Your task to perform on an android device: Search for dell xps on newegg, select the first entry, add it to the cart, then select checkout. Image 0: 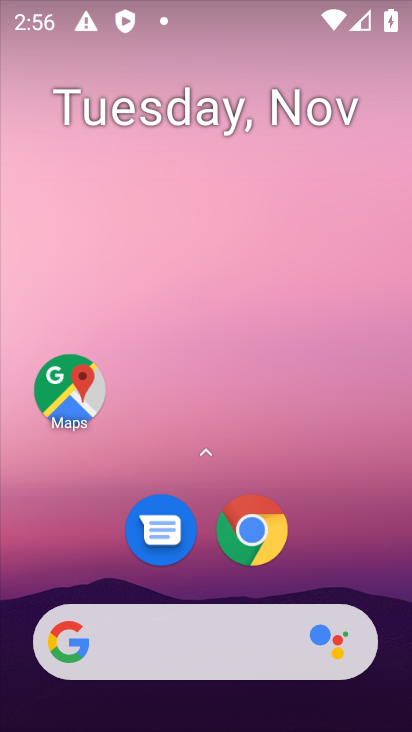
Step 0: drag from (244, 701) to (182, 53)
Your task to perform on an android device: Search for dell xps on newegg, select the first entry, add it to the cart, then select checkout. Image 1: 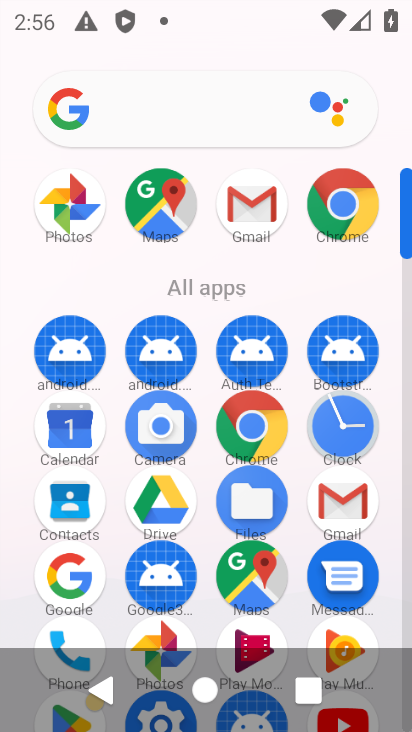
Step 1: click (248, 414)
Your task to perform on an android device: Search for dell xps on newegg, select the first entry, add it to the cart, then select checkout. Image 2: 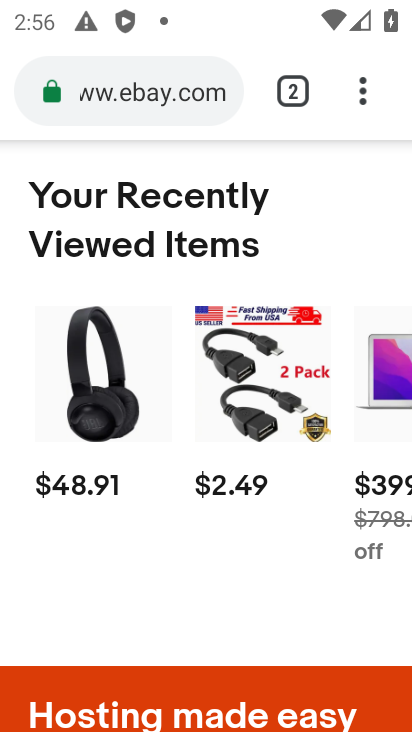
Step 2: drag from (294, 200) to (203, 624)
Your task to perform on an android device: Search for dell xps on newegg, select the first entry, add it to the cart, then select checkout. Image 3: 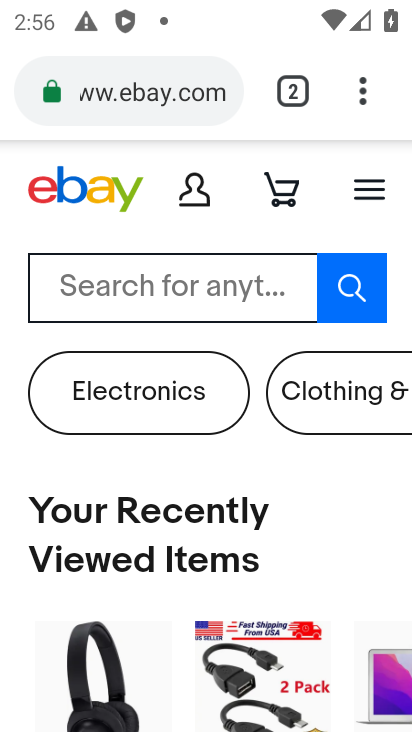
Step 3: click (145, 91)
Your task to perform on an android device: Search for dell xps on newegg, select the first entry, add it to the cart, then select checkout. Image 4: 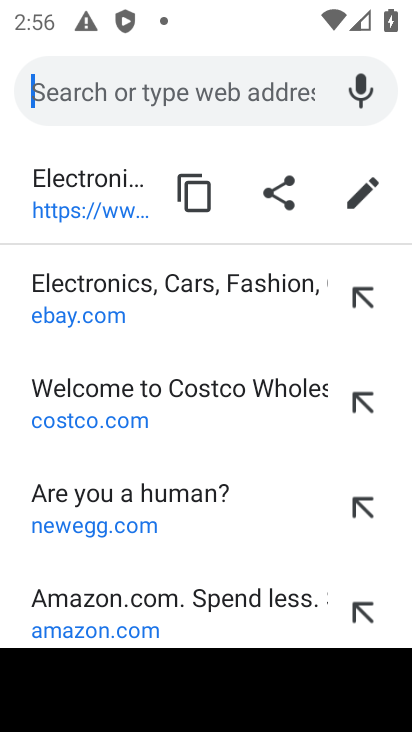
Step 4: type " newegg"
Your task to perform on an android device: Search for dell xps on newegg, select the first entry, add it to the cart, then select checkout. Image 5: 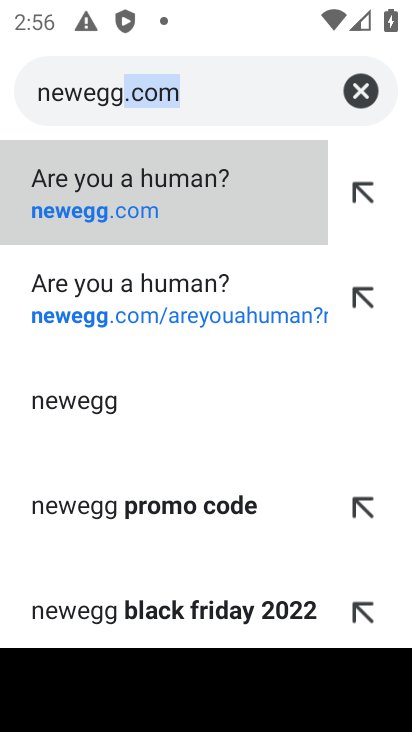
Step 5: click (110, 214)
Your task to perform on an android device: Search for dell xps on newegg, select the first entry, add it to the cart, then select checkout. Image 6: 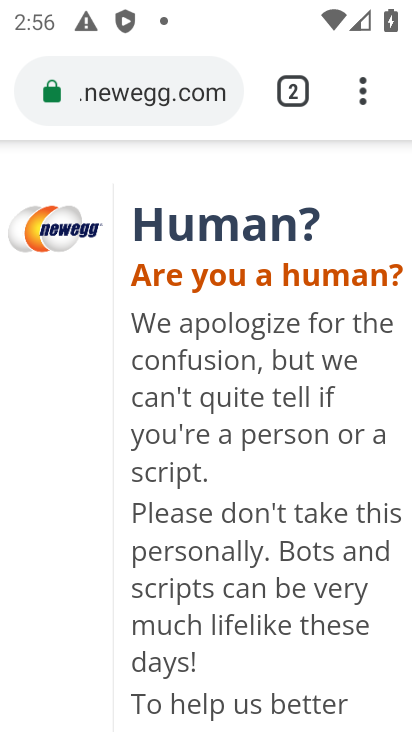
Step 6: press back button
Your task to perform on an android device: Search for dell xps on newegg, select the first entry, add it to the cart, then select checkout. Image 7: 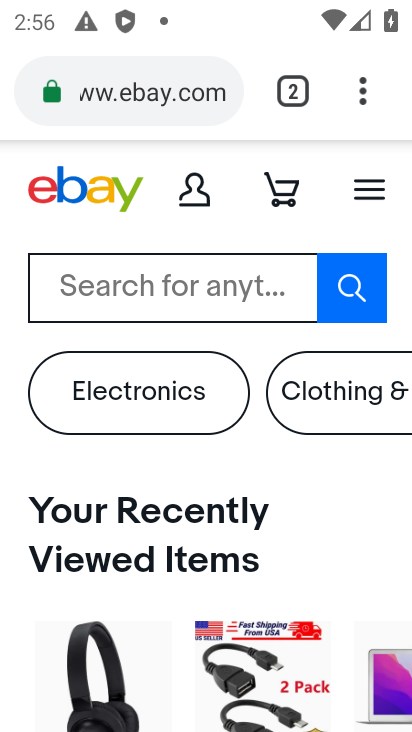
Step 7: click (183, 100)
Your task to perform on an android device: Search for dell xps on newegg, select the first entry, add it to the cart, then select checkout. Image 8: 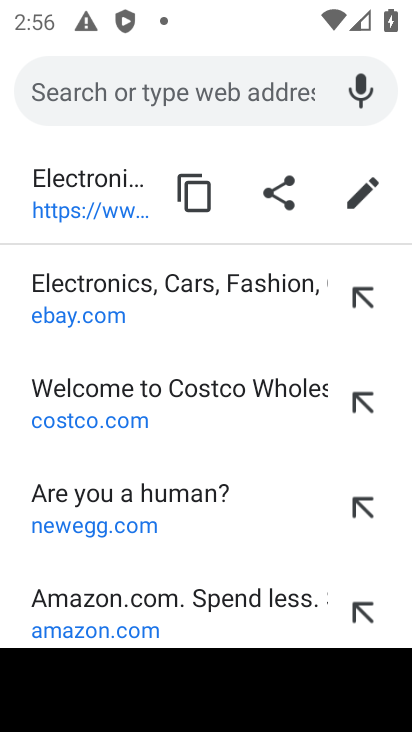
Step 8: type "newegg"
Your task to perform on an android device: Search for dell xps on newegg, select the first entry, add it to the cart, then select checkout. Image 9: 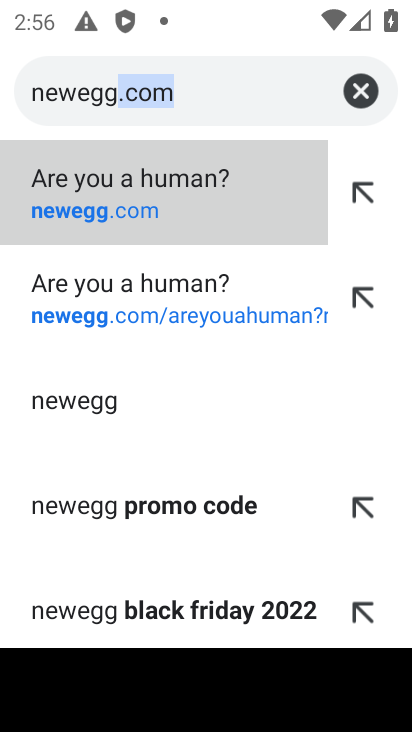
Step 9: click (96, 213)
Your task to perform on an android device: Search for dell xps on newegg, select the first entry, add it to the cart, then select checkout. Image 10: 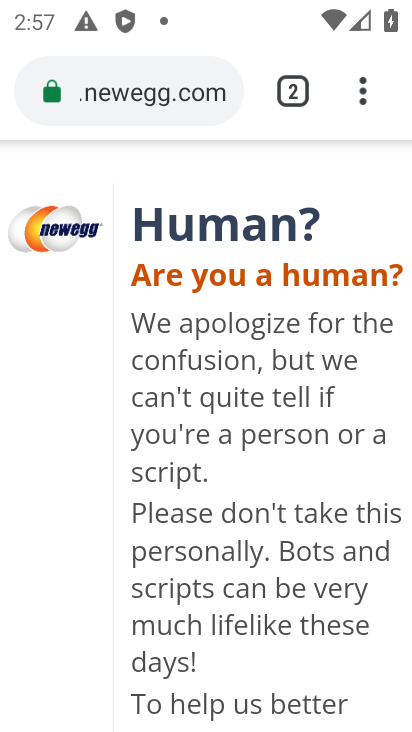
Step 10: drag from (224, 446) to (266, 233)
Your task to perform on an android device: Search for dell xps on newegg, select the first entry, add it to the cart, then select checkout. Image 11: 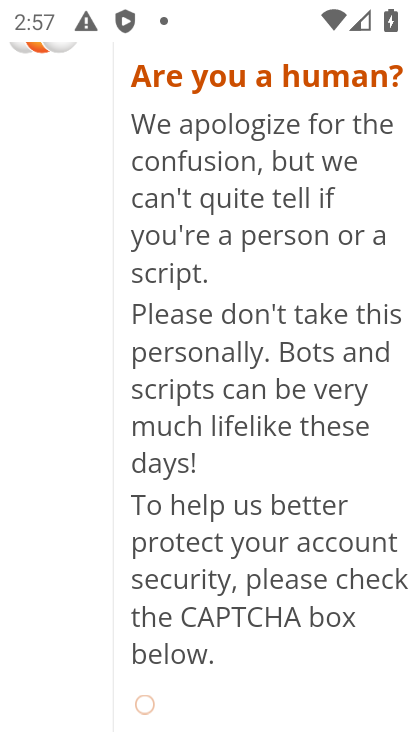
Step 11: drag from (277, 548) to (284, 337)
Your task to perform on an android device: Search for dell xps on newegg, select the first entry, add it to the cart, then select checkout. Image 12: 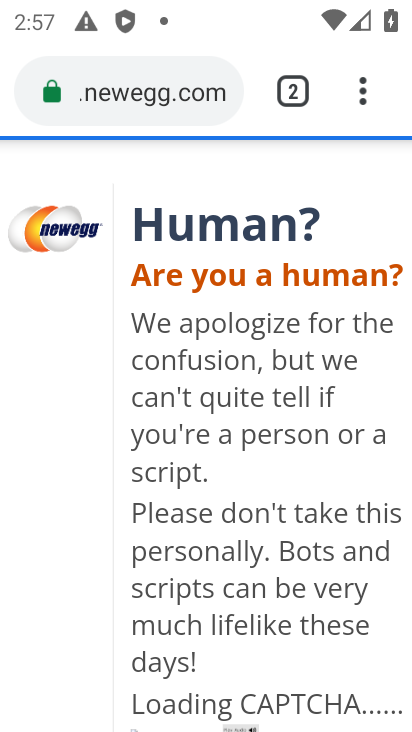
Step 12: drag from (288, 513) to (292, 283)
Your task to perform on an android device: Search for dell xps on newegg, select the first entry, add it to the cart, then select checkout. Image 13: 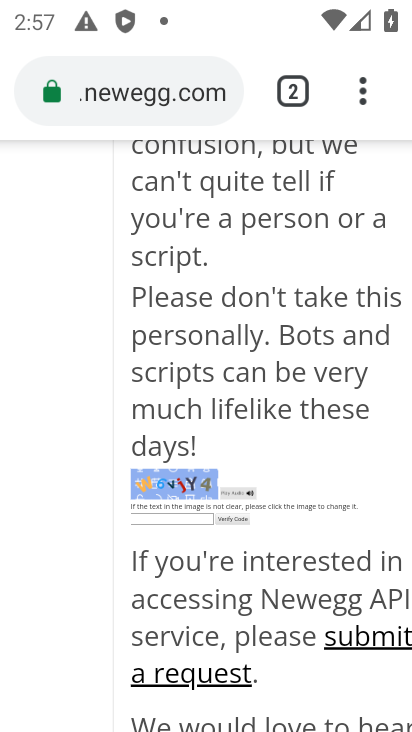
Step 13: drag from (250, 582) to (265, 221)
Your task to perform on an android device: Search for dell xps on newegg, select the first entry, add it to the cart, then select checkout. Image 14: 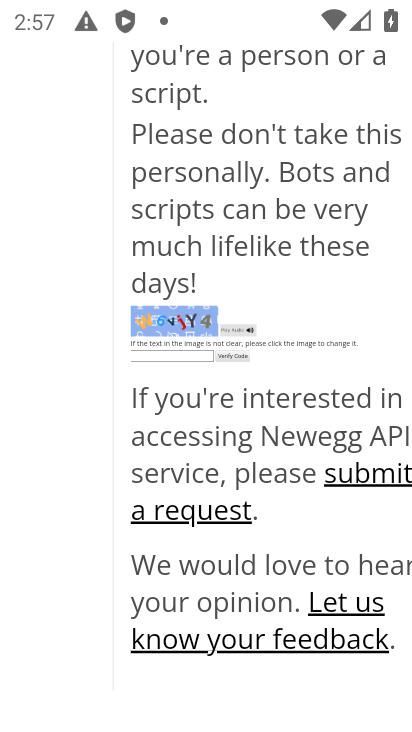
Step 14: drag from (250, 555) to (310, 243)
Your task to perform on an android device: Search for dell xps on newegg, select the first entry, add it to the cart, then select checkout. Image 15: 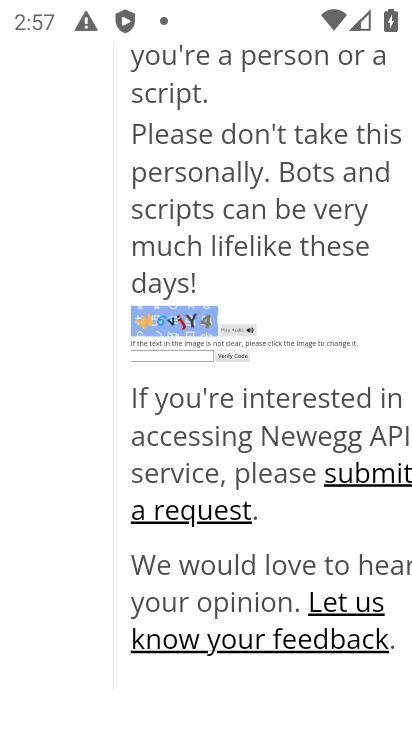
Step 15: drag from (303, 200) to (248, 651)
Your task to perform on an android device: Search for dell xps on newegg, select the first entry, add it to the cart, then select checkout. Image 16: 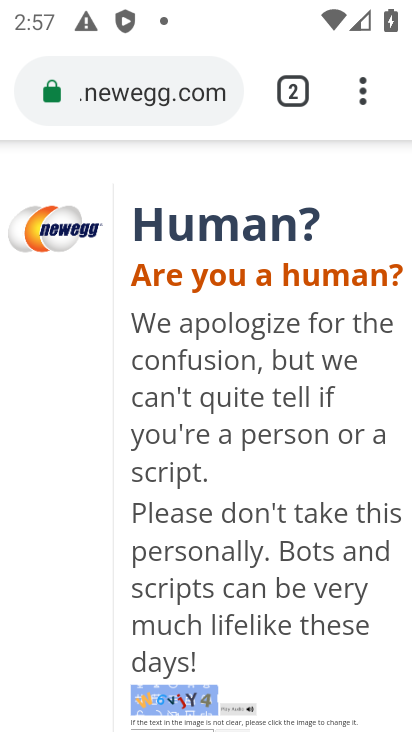
Step 16: click (210, 97)
Your task to perform on an android device: Search for dell xps on newegg, select the first entry, add it to the cart, then select checkout. Image 17: 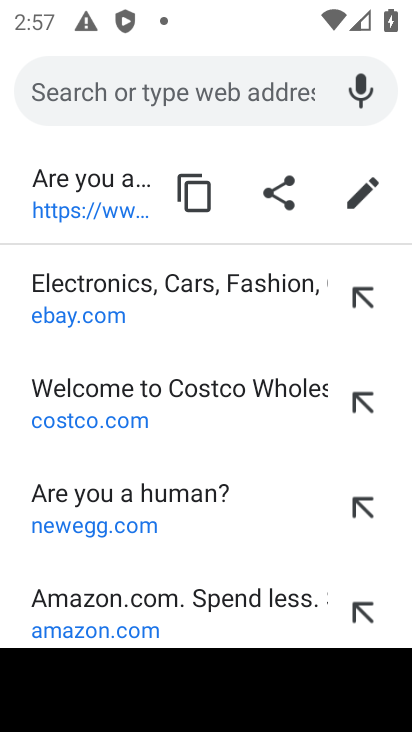
Step 17: task complete